Your task to perform on an android device: turn on the 12-hour format for clock Image 0: 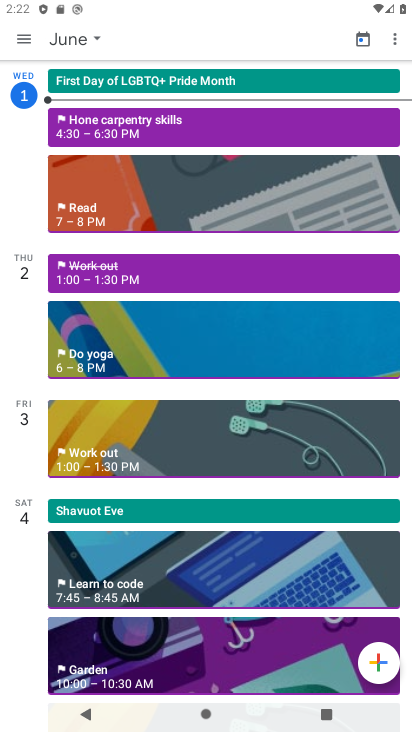
Step 0: press home button
Your task to perform on an android device: turn on the 12-hour format for clock Image 1: 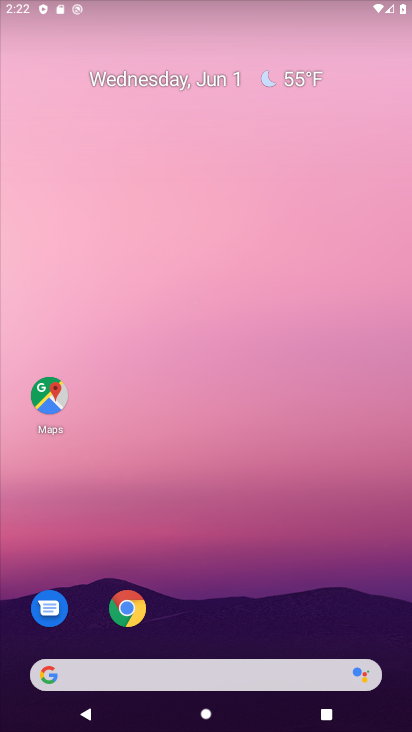
Step 1: drag from (268, 632) to (284, 47)
Your task to perform on an android device: turn on the 12-hour format for clock Image 2: 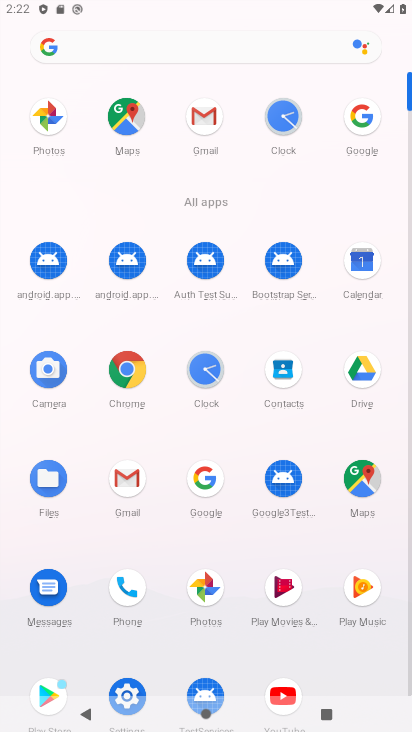
Step 2: click (202, 369)
Your task to perform on an android device: turn on the 12-hour format for clock Image 3: 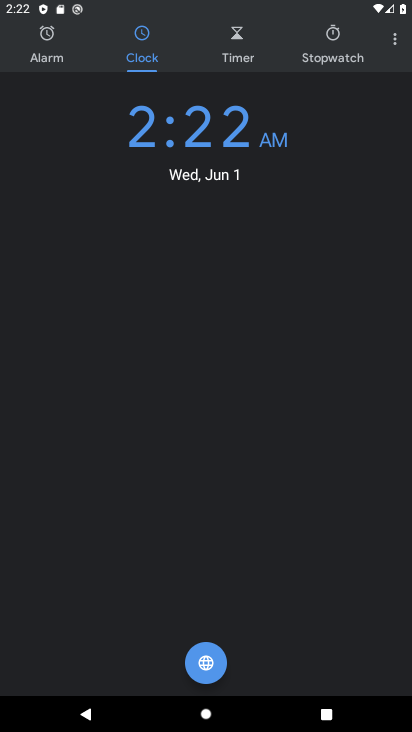
Step 3: click (396, 40)
Your task to perform on an android device: turn on the 12-hour format for clock Image 4: 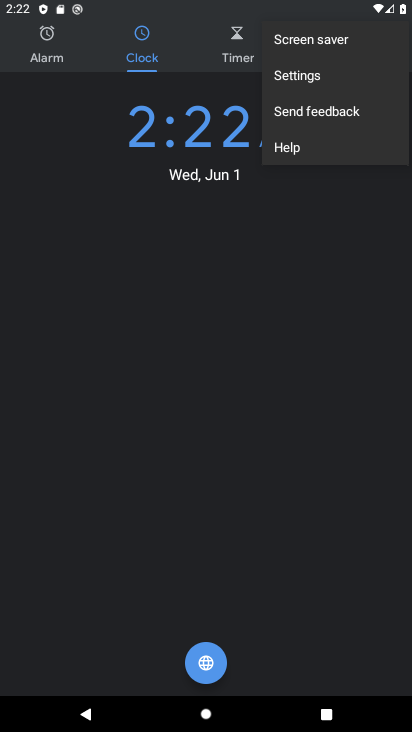
Step 4: click (297, 78)
Your task to perform on an android device: turn on the 12-hour format for clock Image 5: 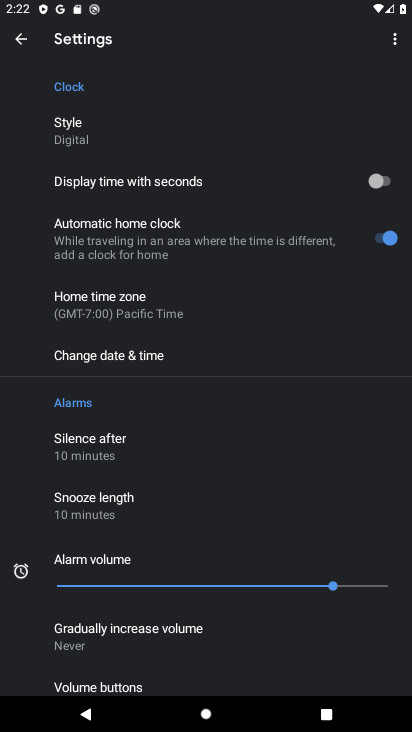
Step 5: click (169, 348)
Your task to perform on an android device: turn on the 12-hour format for clock Image 6: 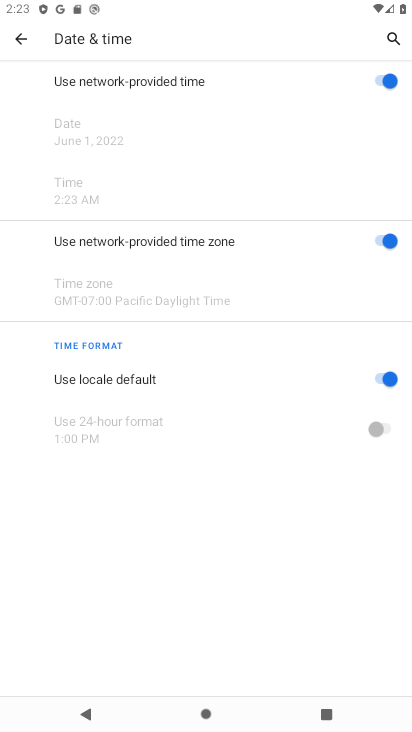
Step 6: task complete